Your task to perform on an android device: What is the news today? Image 0: 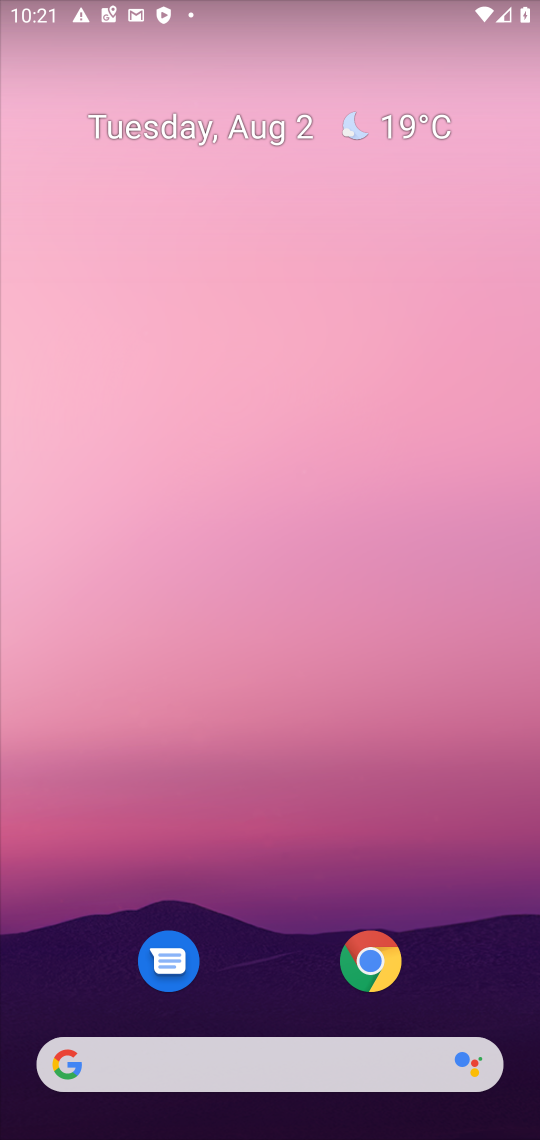
Step 0: press home button
Your task to perform on an android device: What is the news today? Image 1: 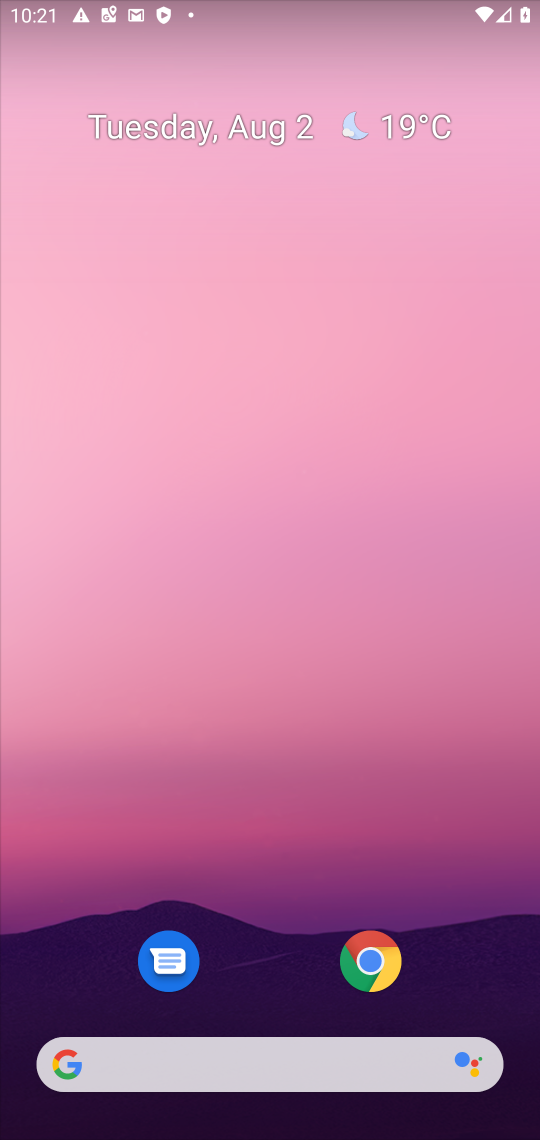
Step 1: click (373, 961)
Your task to perform on an android device: What is the news today? Image 2: 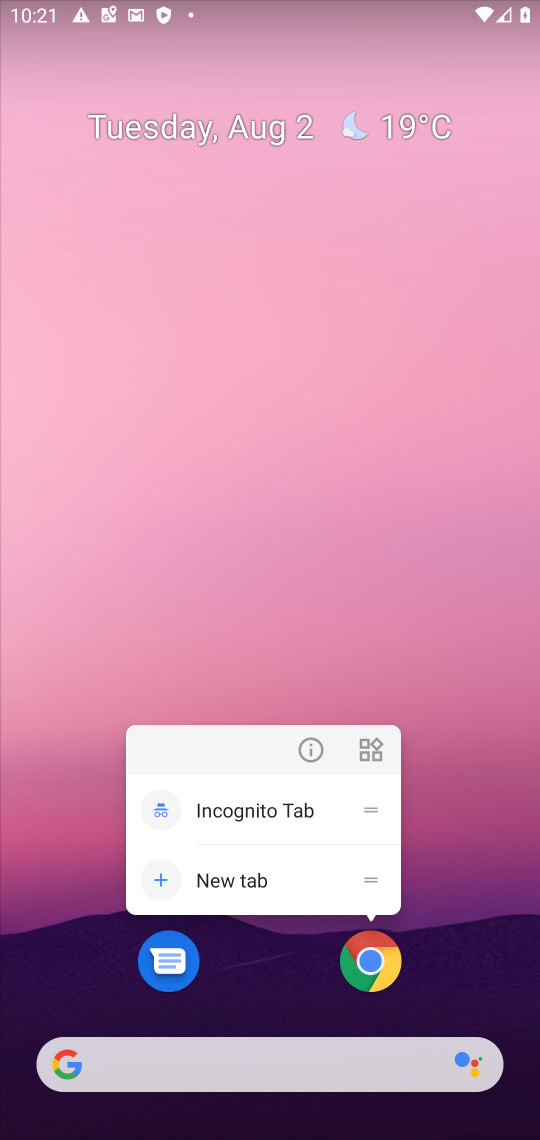
Step 2: click (373, 961)
Your task to perform on an android device: What is the news today? Image 3: 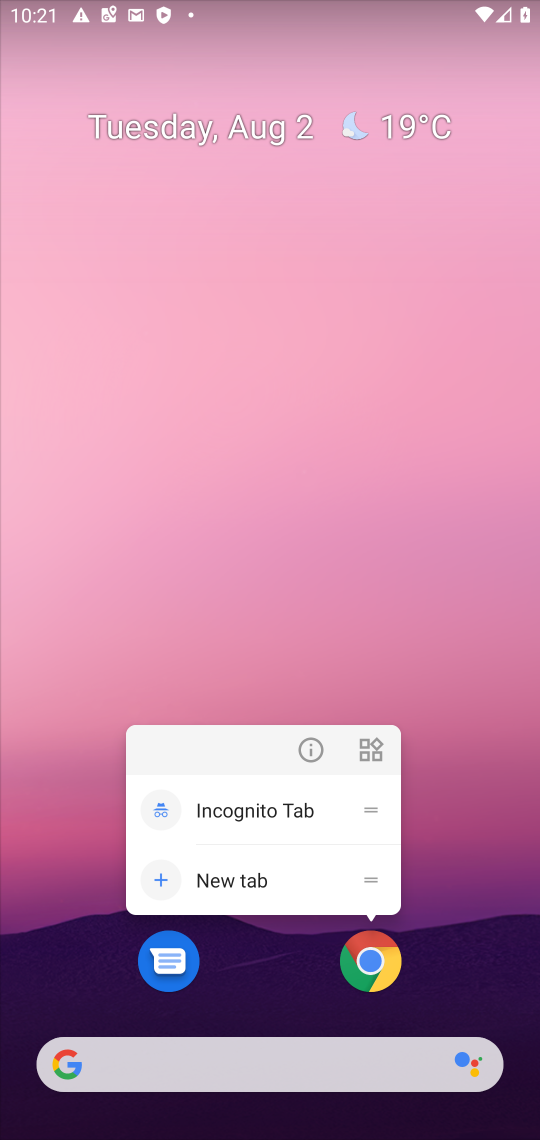
Step 3: click (373, 961)
Your task to perform on an android device: What is the news today? Image 4: 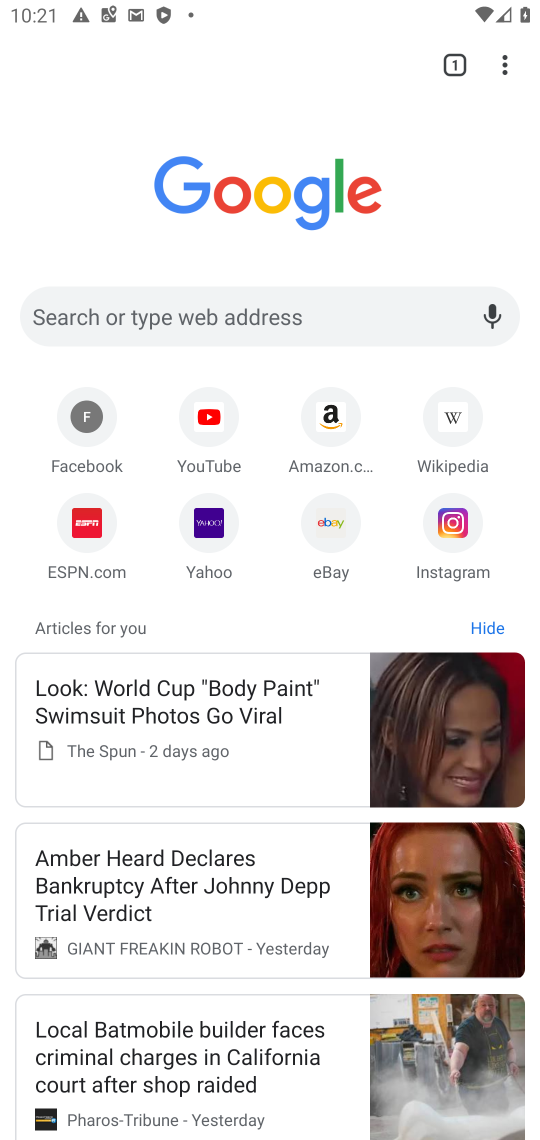
Step 4: click (202, 313)
Your task to perform on an android device: What is the news today? Image 5: 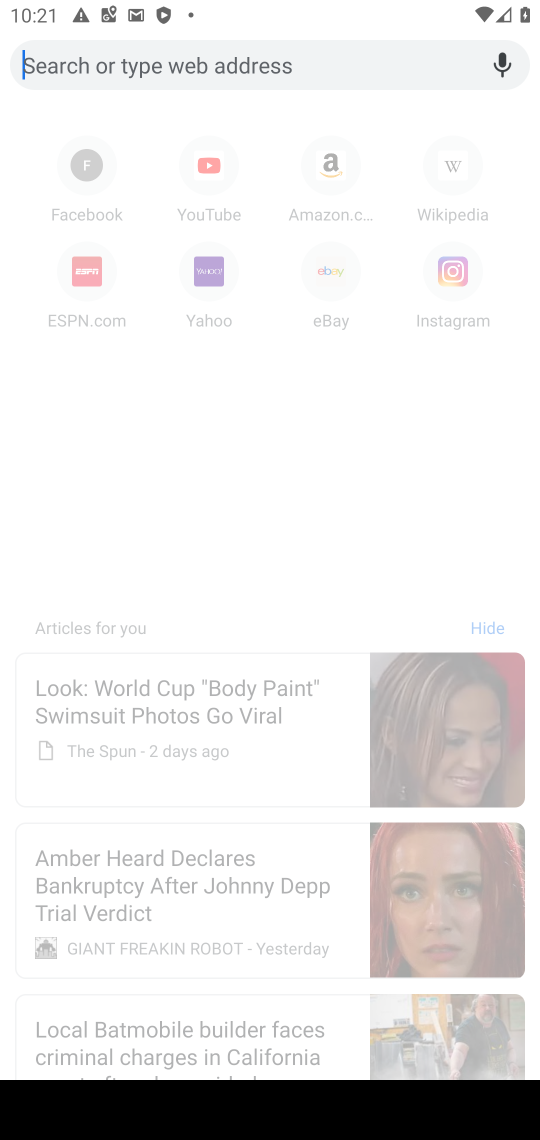
Step 5: type "What is the news today?"
Your task to perform on an android device: What is the news today? Image 6: 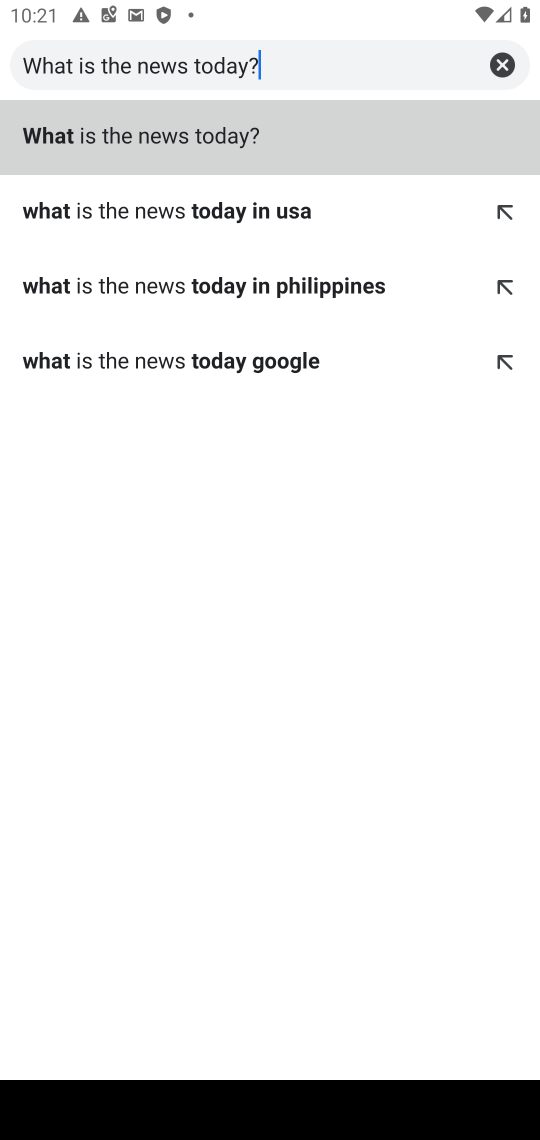
Step 6: type ""
Your task to perform on an android device: What is the news today? Image 7: 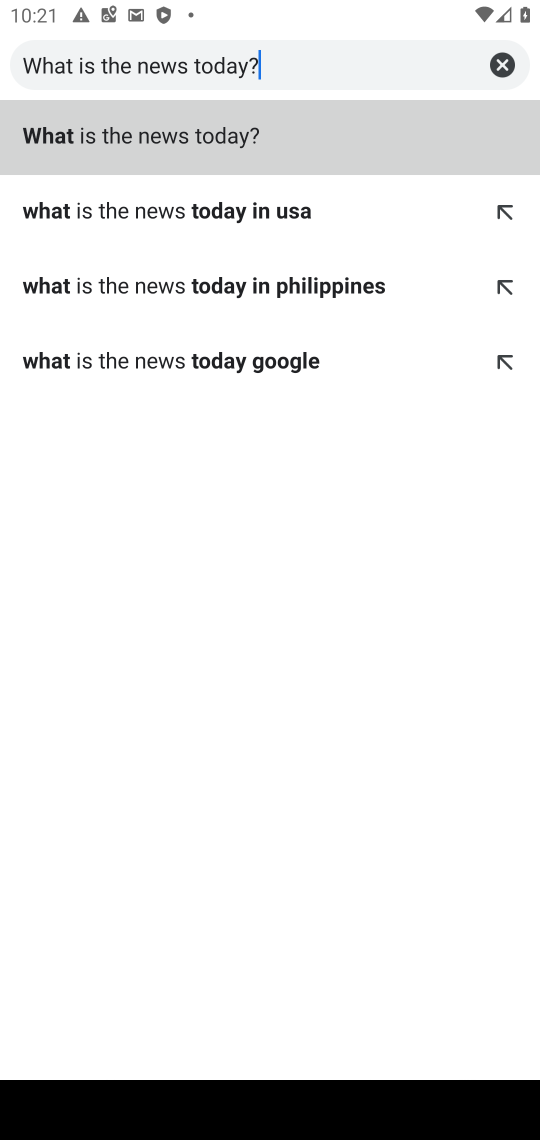
Step 7: click (136, 157)
Your task to perform on an android device: What is the news today? Image 8: 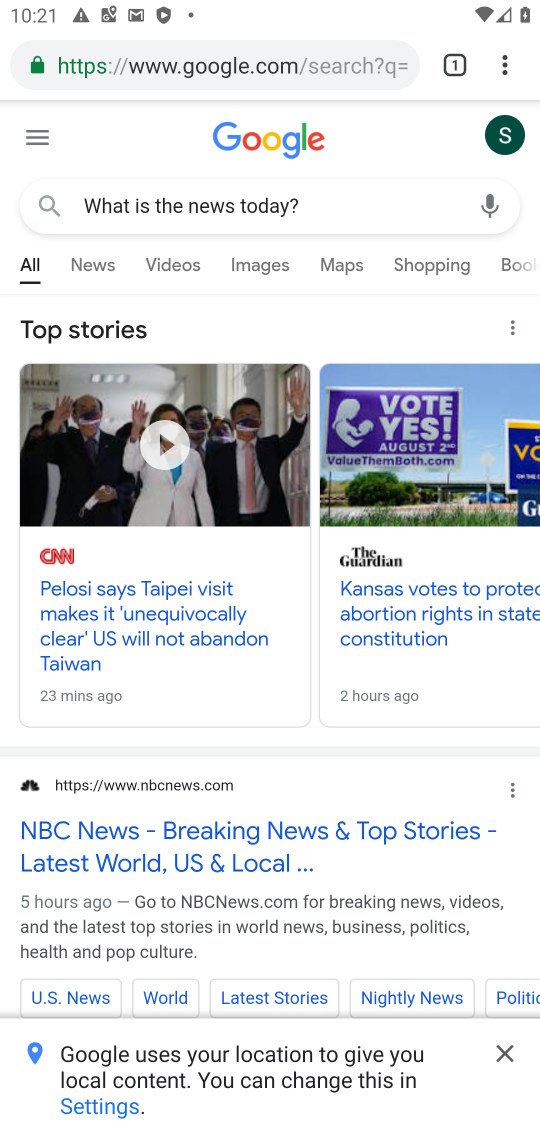
Step 8: task complete